Your task to perform on an android device: add a contact Image 0: 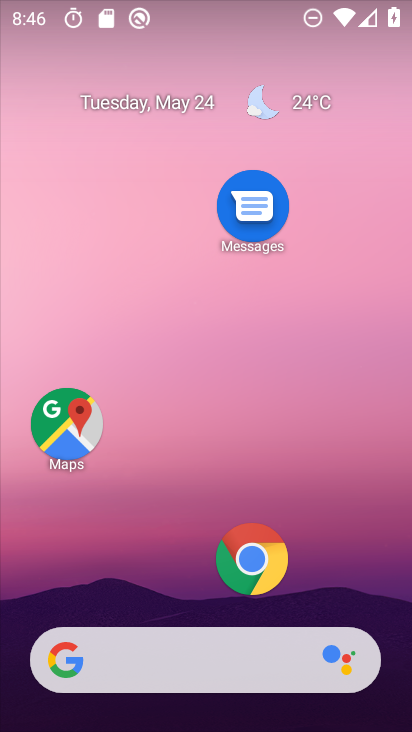
Step 0: drag from (163, 583) to (169, 178)
Your task to perform on an android device: add a contact Image 1: 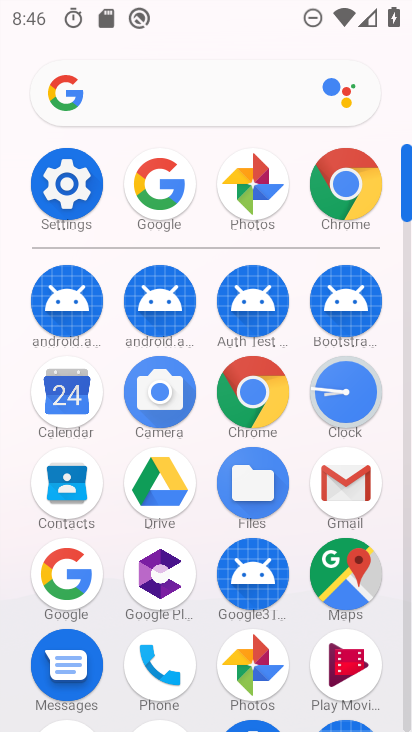
Step 1: click (48, 487)
Your task to perform on an android device: add a contact Image 2: 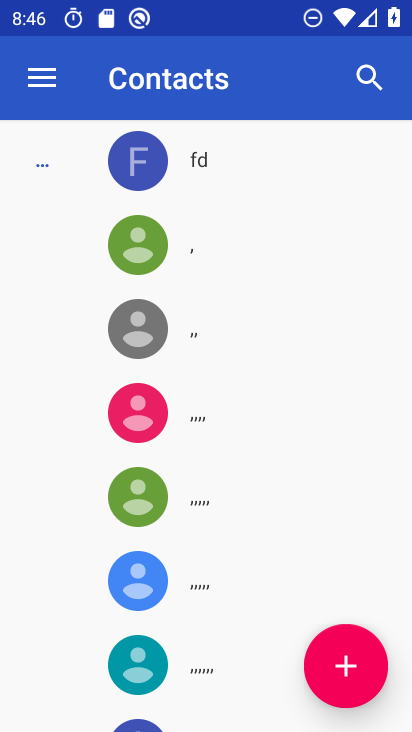
Step 2: click (333, 676)
Your task to perform on an android device: add a contact Image 3: 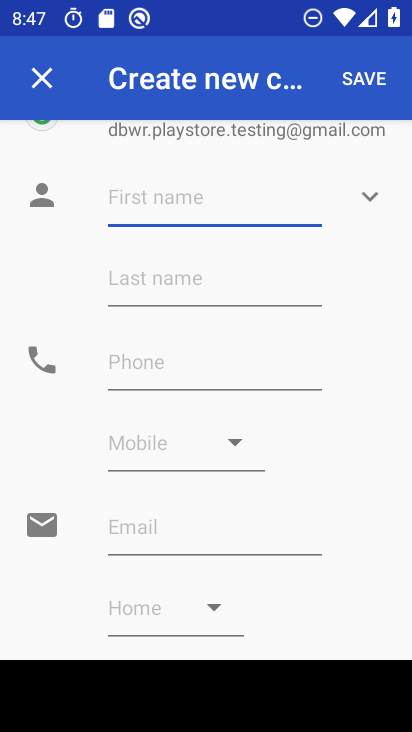
Step 3: type "sdfdh"
Your task to perform on an android device: add a contact Image 4: 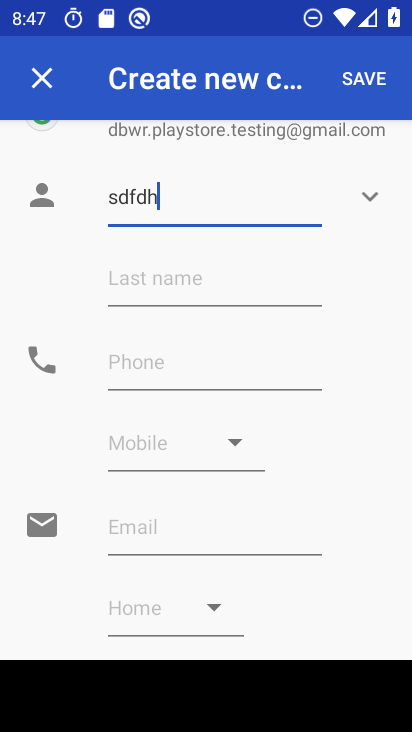
Step 4: click (136, 370)
Your task to perform on an android device: add a contact Image 5: 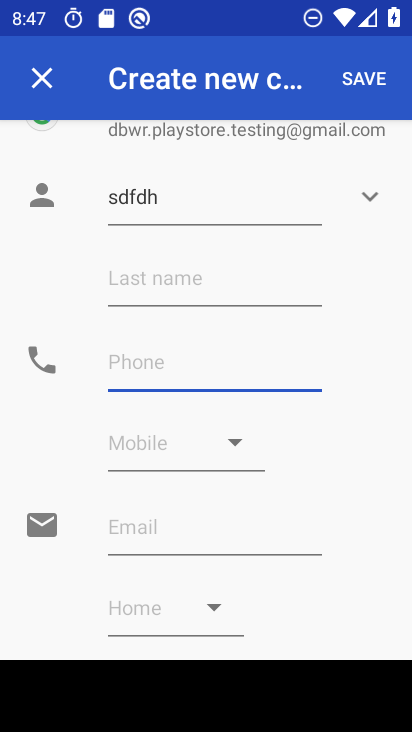
Step 5: type "857966755464"
Your task to perform on an android device: add a contact Image 6: 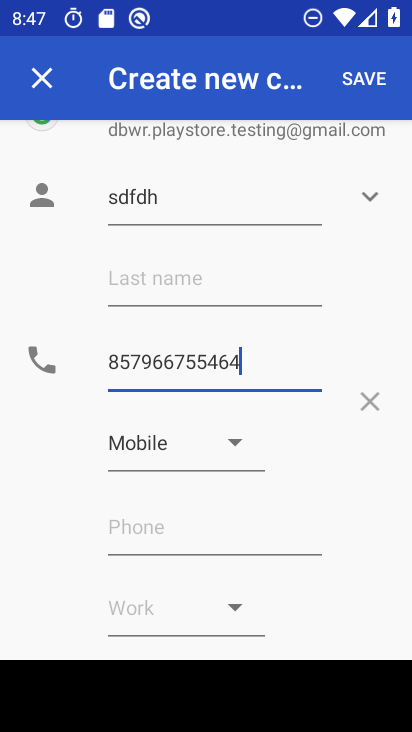
Step 6: click (362, 75)
Your task to perform on an android device: add a contact Image 7: 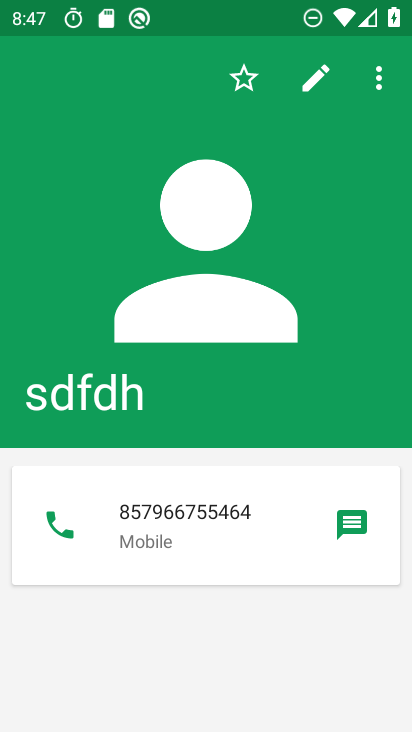
Step 7: task complete